Your task to perform on an android device: turn off translation in the chrome app Image 0: 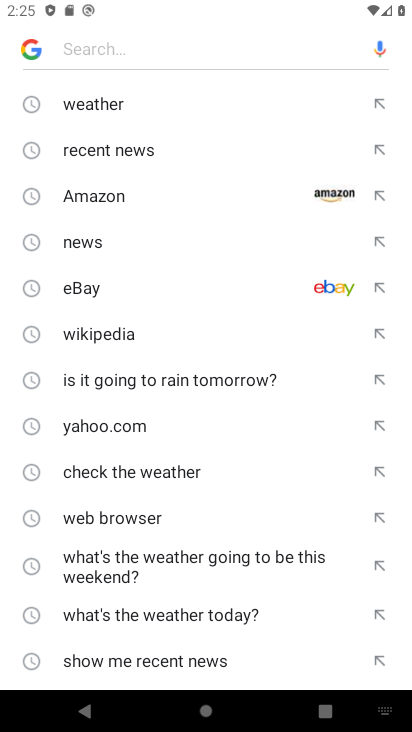
Step 0: press home button
Your task to perform on an android device: turn off translation in the chrome app Image 1: 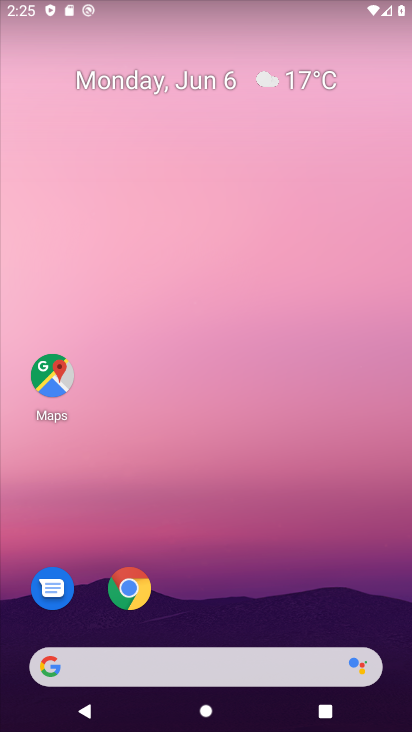
Step 1: click (115, 571)
Your task to perform on an android device: turn off translation in the chrome app Image 2: 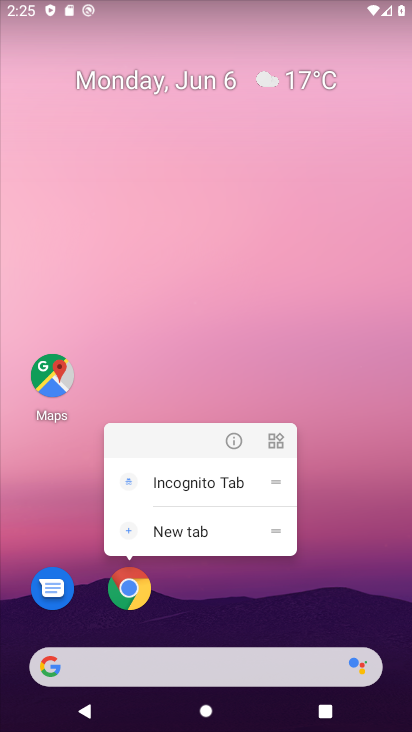
Step 2: click (133, 596)
Your task to perform on an android device: turn off translation in the chrome app Image 3: 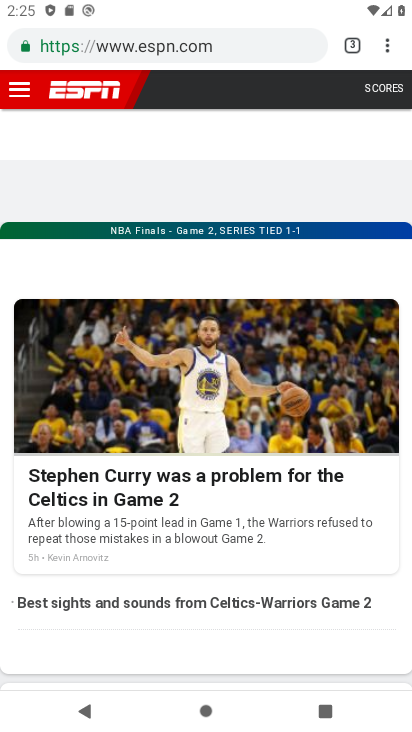
Step 3: drag from (388, 51) to (245, 551)
Your task to perform on an android device: turn off translation in the chrome app Image 4: 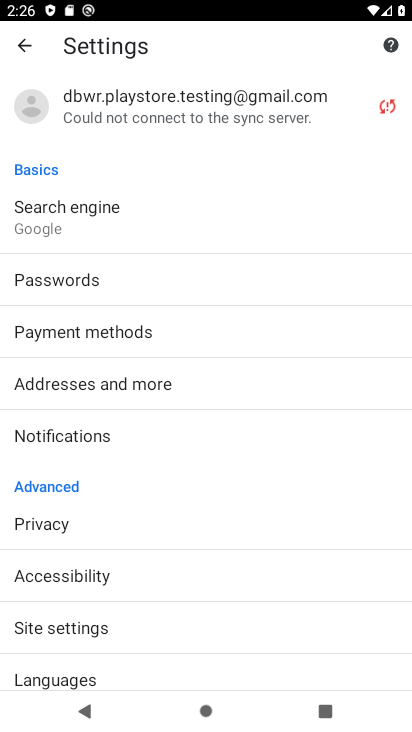
Step 4: click (103, 670)
Your task to perform on an android device: turn off translation in the chrome app Image 5: 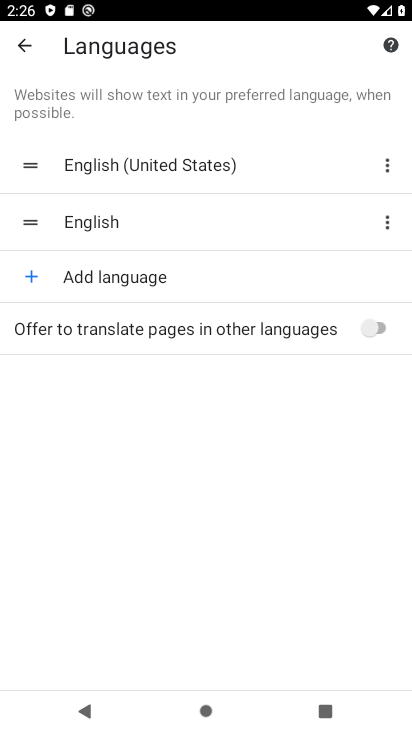
Step 5: task complete